Your task to perform on an android device: Open calendar and show me the first week of next month Image 0: 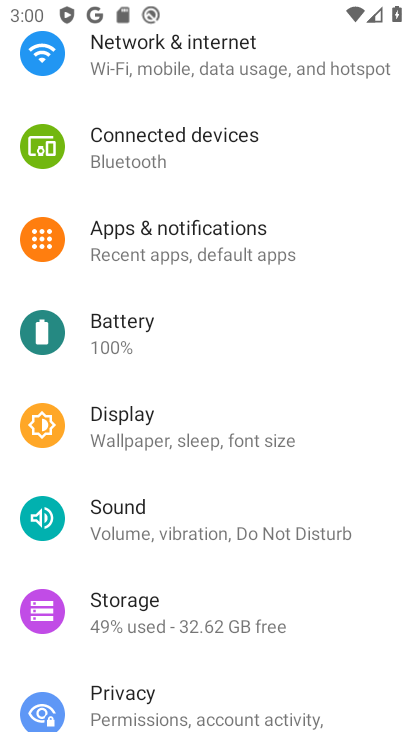
Step 0: press home button
Your task to perform on an android device: Open calendar and show me the first week of next month Image 1: 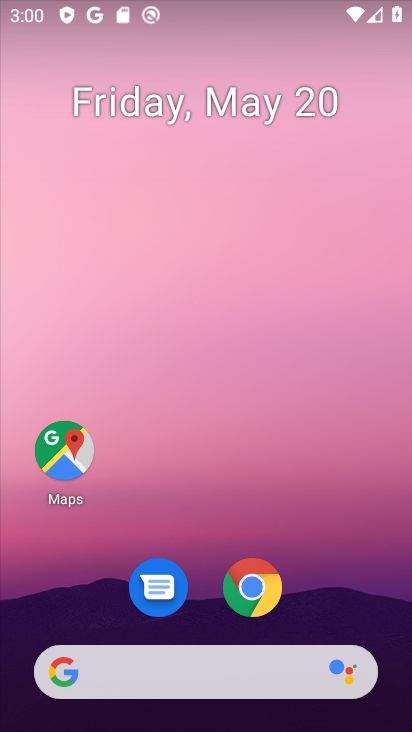
Step 1: drag from (218, 680) to (360, 205)
Your task to perform on an android device: Open calendar and show me the first week of next month Image 2: 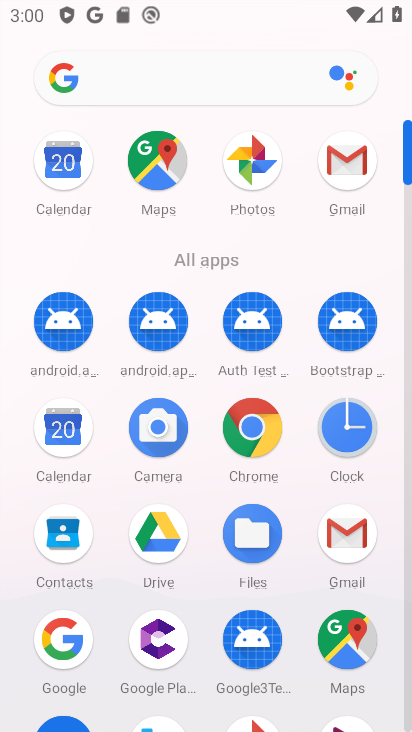
Step 2: click (63, 441)
Your task to perform on an android device: Open calendar and show me the first week of next month Image 3: 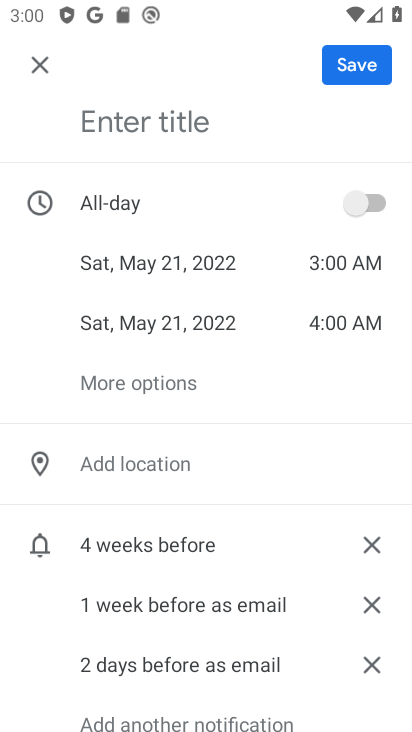
Step 3: click (44, 54)
Your task to perform on an android device: Open calendar and show me the first week of next month Image 4: 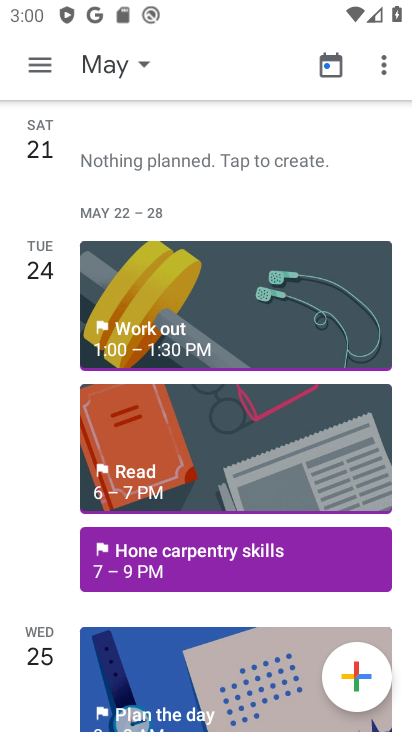
Step 4: click (123, 59)
Your task to perform on an android device: Open calendar and show me the first week of next month Image 5: 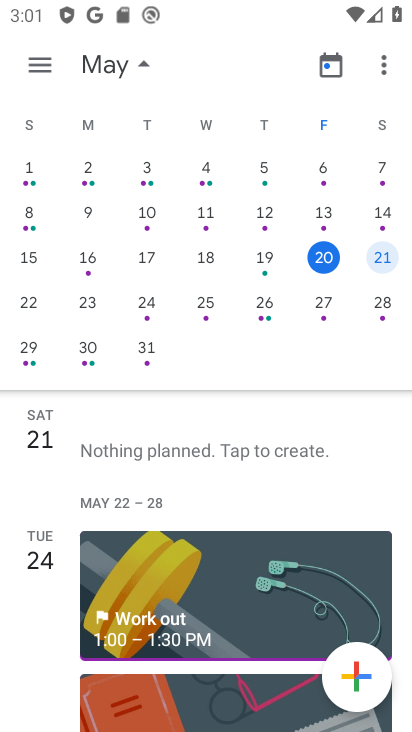
Step 5: drag from (365, 205) to (79, 261)
Your task to perform on an android device: Open calendar and show me the first week of next month Image 6: 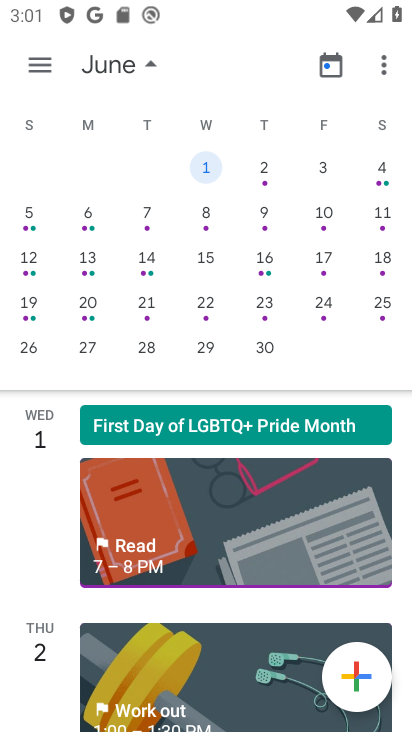
Step 6: click (205, 170)
Your task to perform on an android device: Open calendar and show me the first week of next month Image 7: 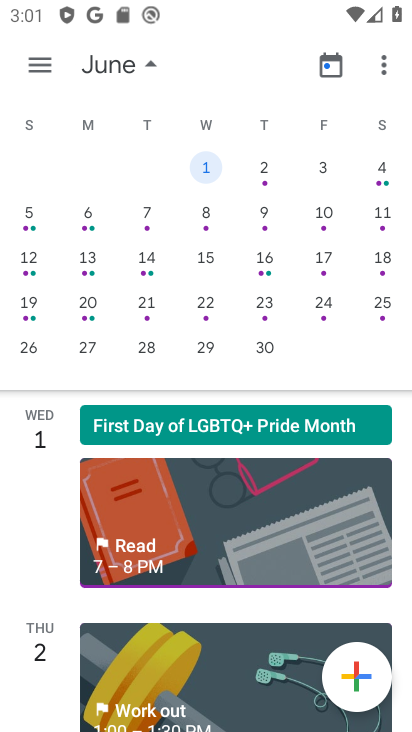
Step 7: click (41, 67)
Your task to perform on an android device: Open calendar and show me the first week of next month Image 8: 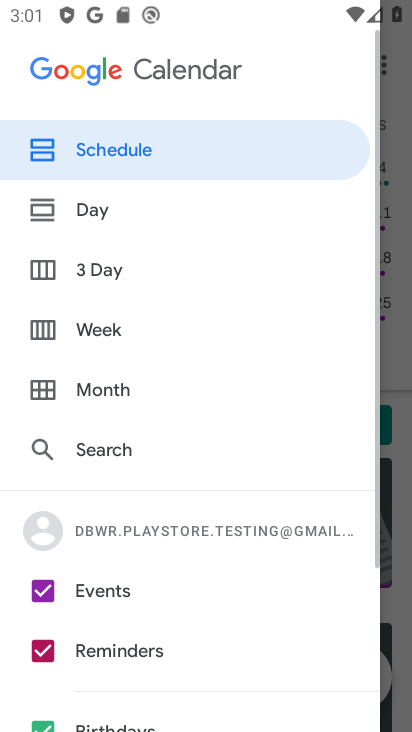
Step 8: click (113, 333)
Your task to perform on an android device: Open calendar and show me the first week of next month Image 9: 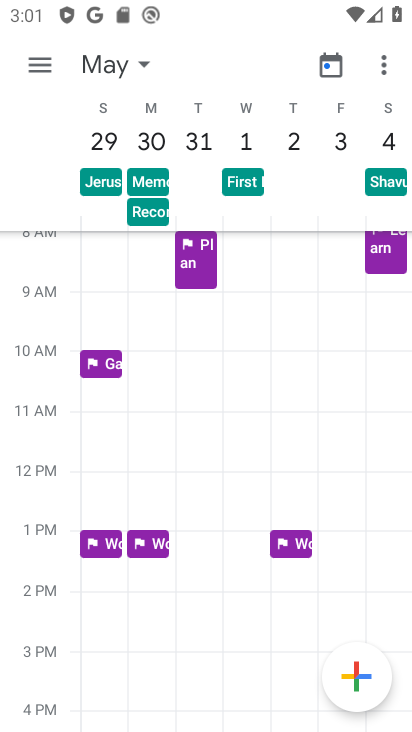
Step 9: task complete